Your task to perform on an android device: delete location history Image 0: 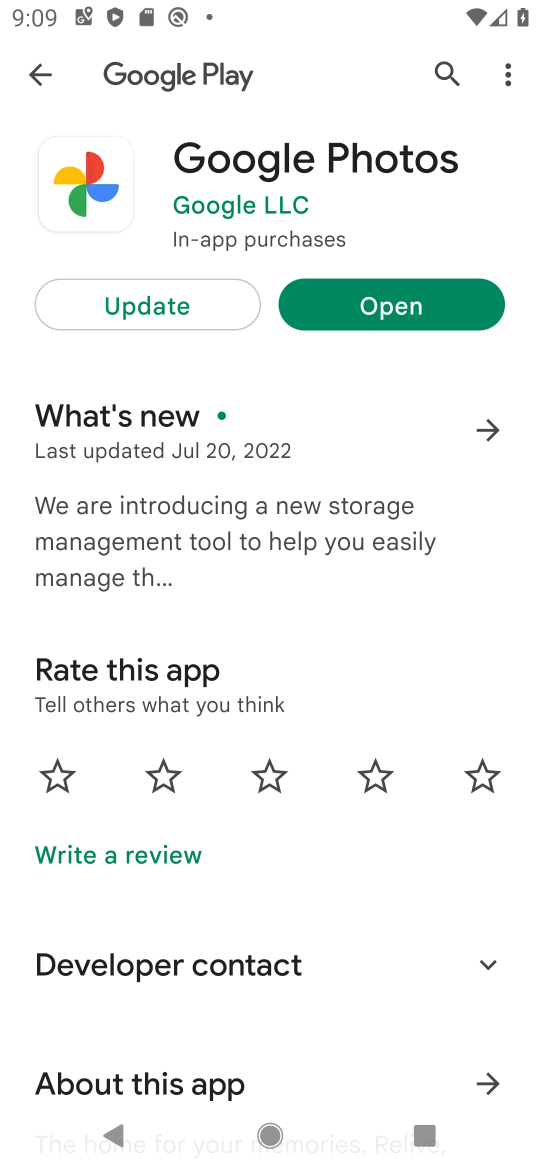
Step 0: press home button
Your task to perform on an android device: delete location history Image 1: 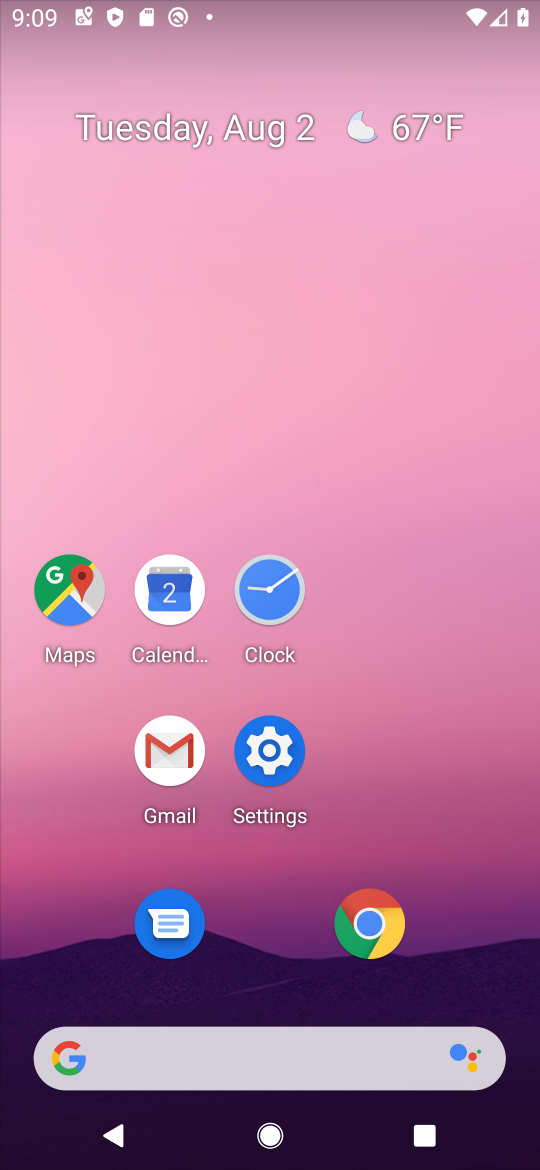
Step 1: click (52, 580)
Your task to perform on an android device: delete location history Image 2: 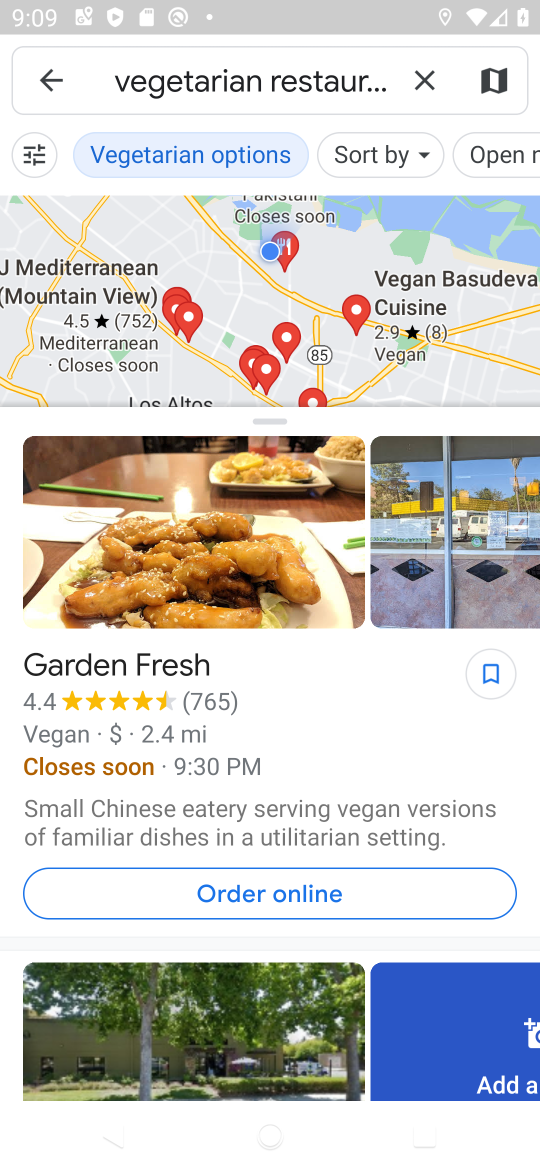
Step 2: click (35, 73)
Your task to perform on an android device: delete location history Image 3: 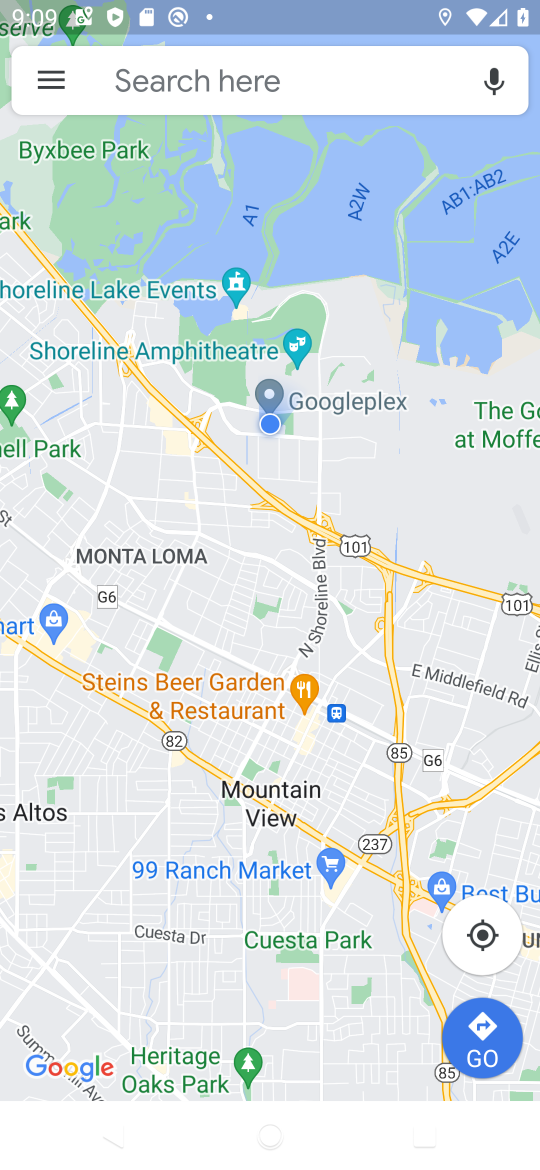
Step 3: click (56, 80)
Your task to perform on an android device: delete location history Image 4: 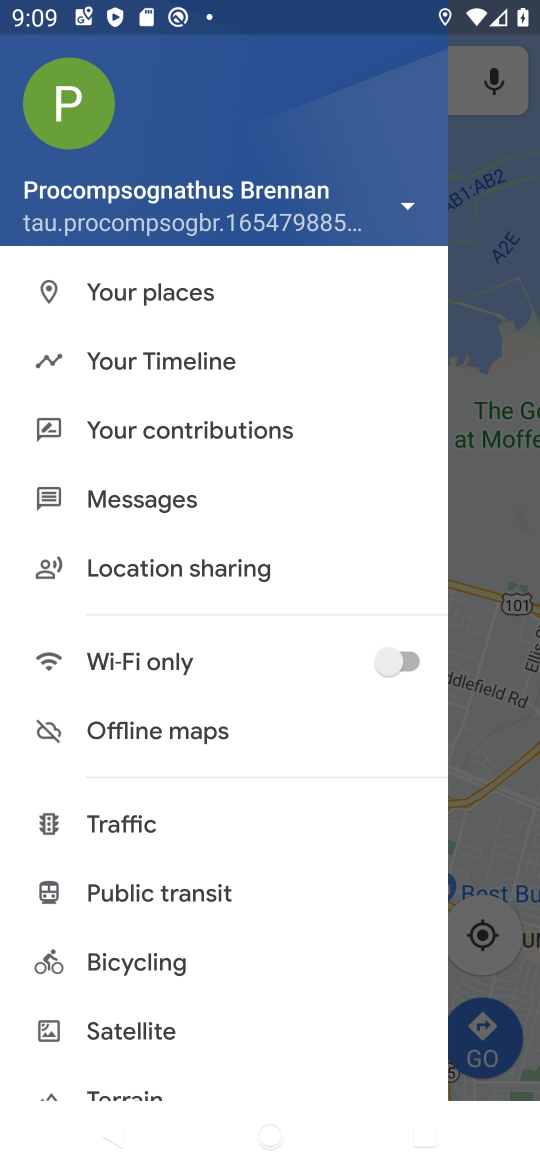
Step 4: click (172, 357)
Your task to perform on an android device: delete location history Image 5: 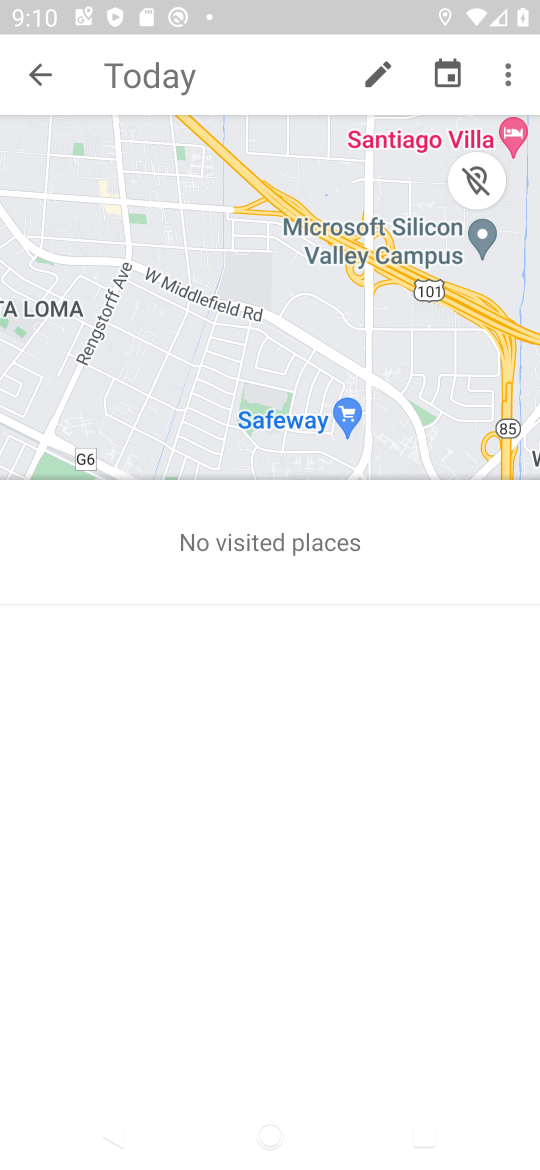
Step 5: click (506, 75)
Your task to perform on an android device: delete location history Image 6: 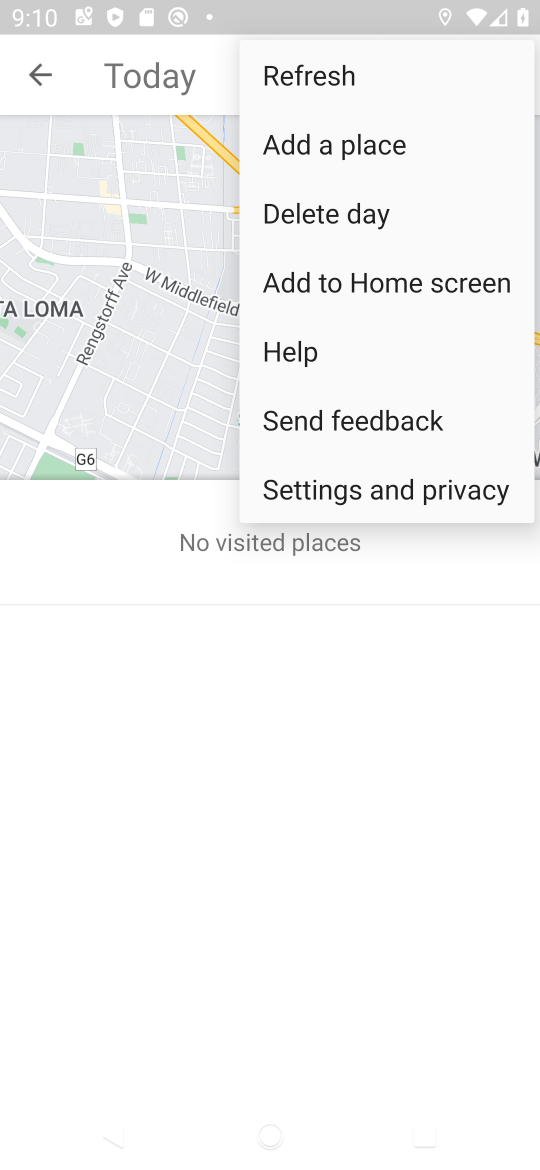
Step 6: click (414, 484)
Your task to perform on an android device: delete location history Image 7: 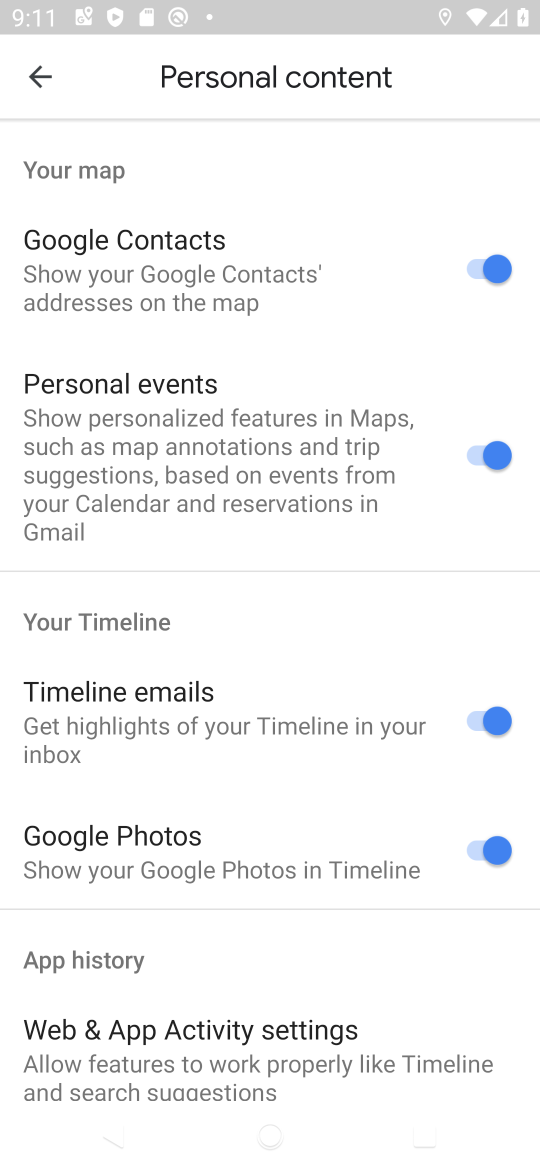
Step 7: drag from (331, 938) to (343, 344)
Your task to perform on an android device: delete location history Image 8: 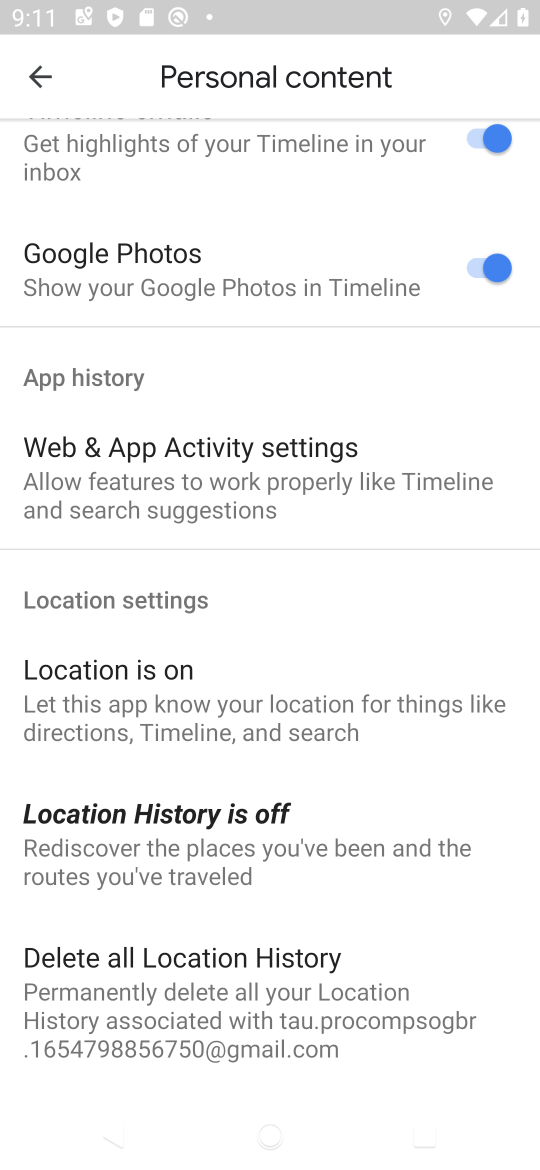
Step 8: drag from (263, 903) to (261, 444)
Your task to perform on an android device: delete location history Image 9: 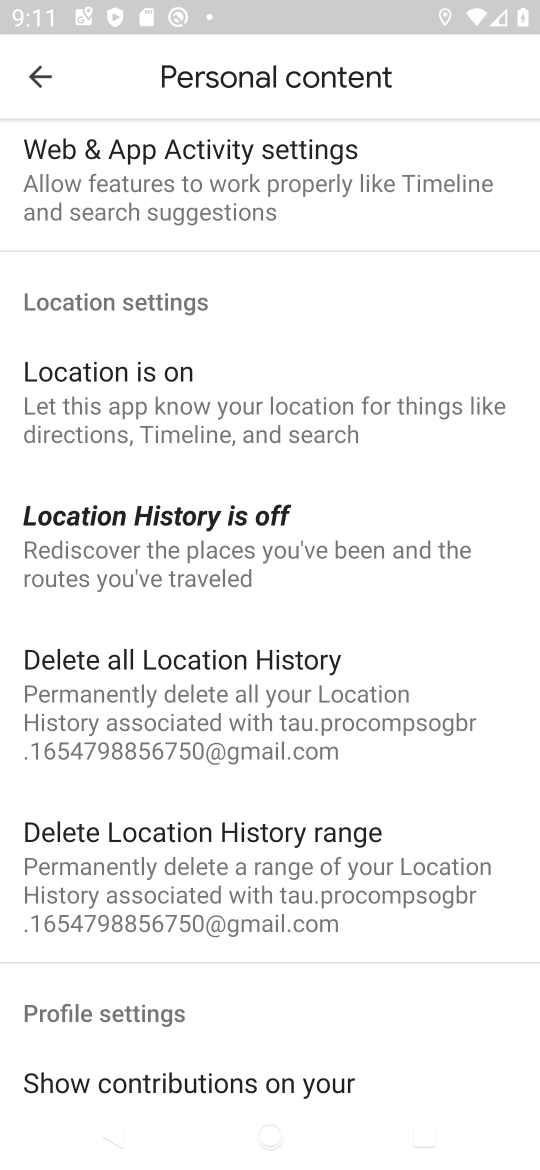
Step 9: click (182, 671)
Your task to perform on an android device: delete location history Image 10: 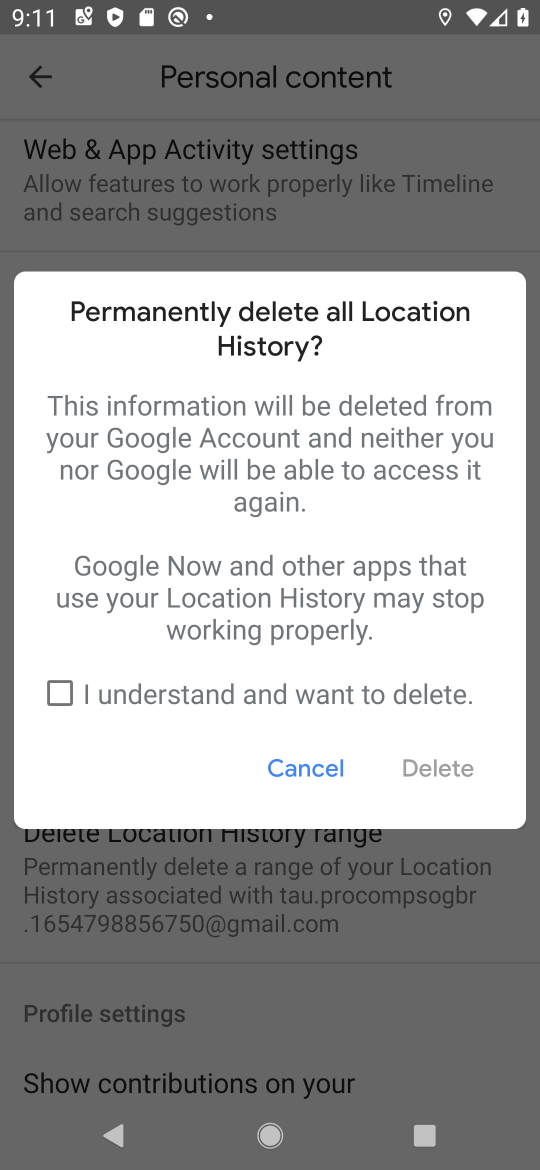
Step 10: click (51, 697)
Your task to perform on an android device: delete location history Image 11: 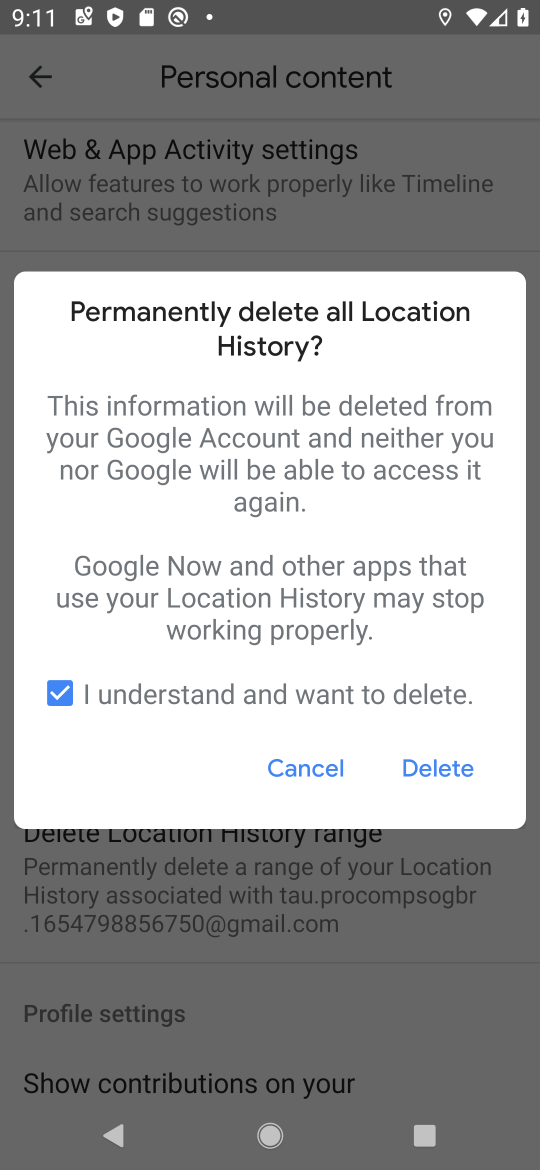
Step 11: click (443, 765)
Your task to perform on an android device: delete location history Image 12: 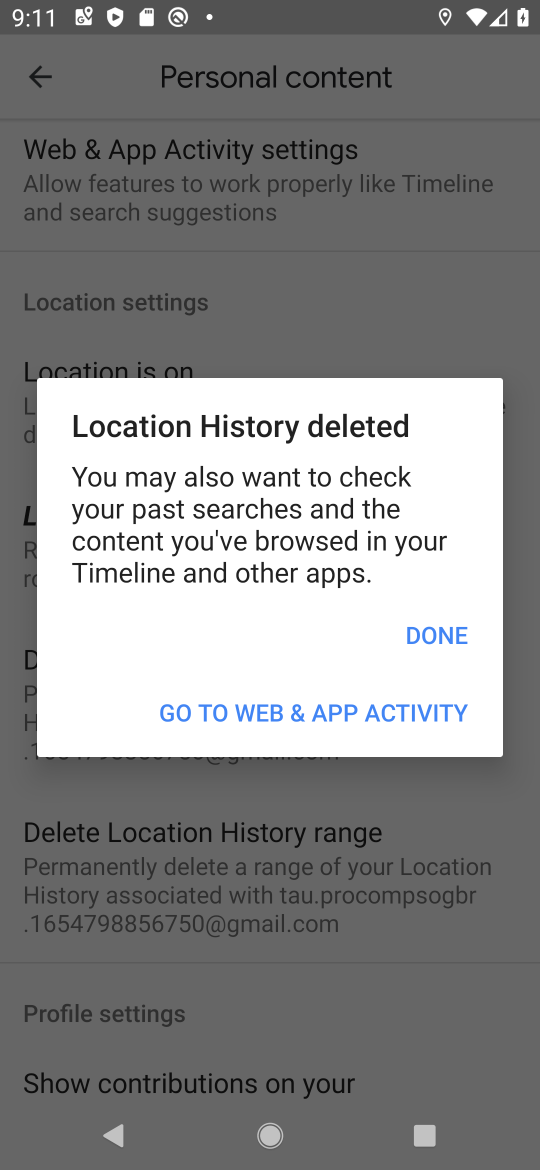
Step 12: click (424, 619)
Your task to perform on an android device: delete location history Image 13: 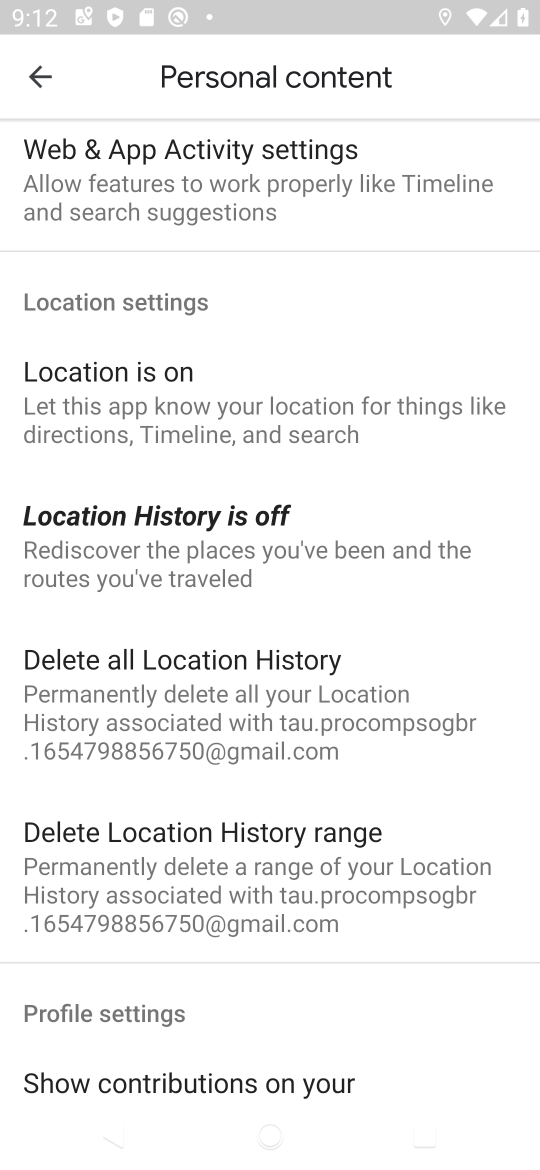
Step 13: task complete